Your task to perform on an android device: Play the last video I watched on Youtube Image 0: 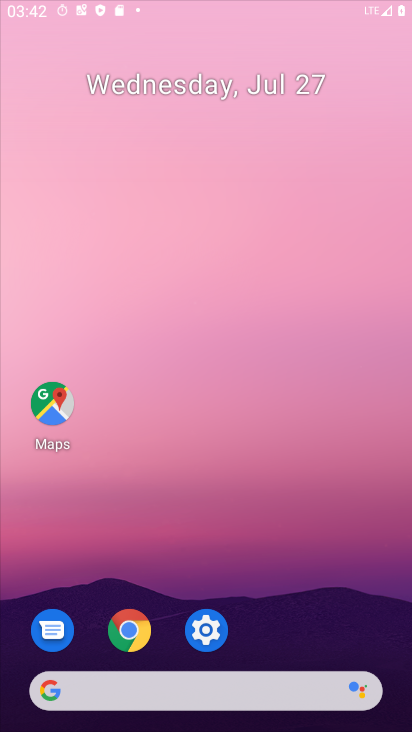
Step 0: click (266, 218)
Your task to perform on an android device: Play the last video I watched on Youtube Image 1: 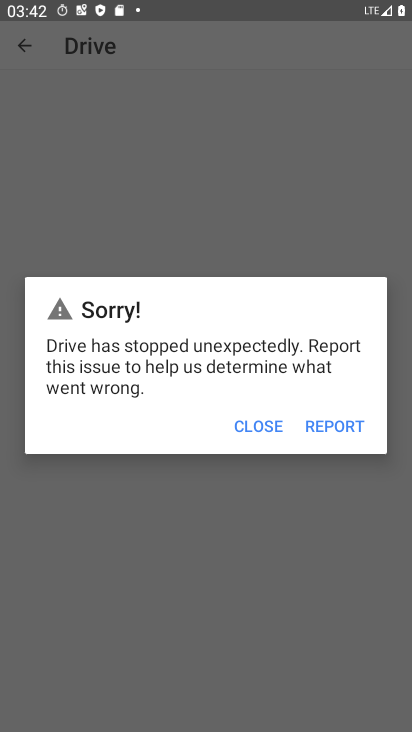
Step 1: drag from (245, 392) to (187, 4)
Your task to perform on an android device: Play the last video I watched on Youtube Image 2: 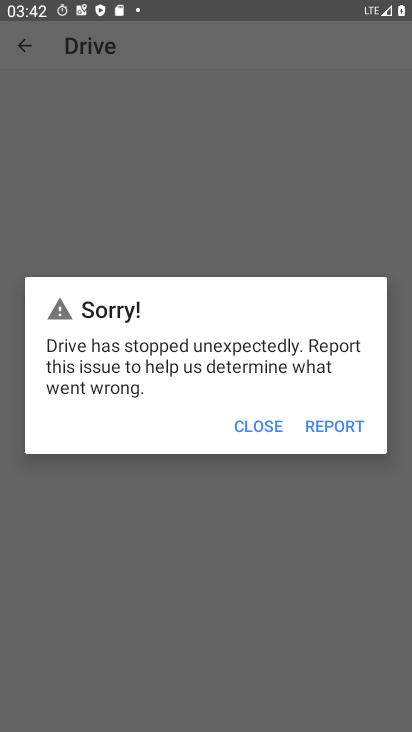
Step 2: click (255, 418)
Your task to perform on an android device: Play the last video I watched on Youtube Image 3: 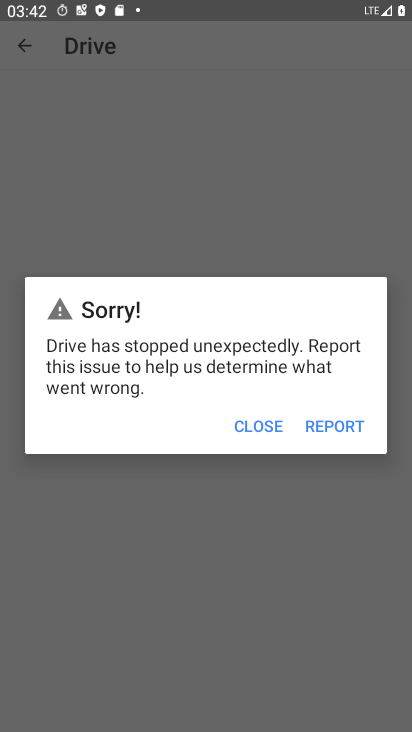
Step 3: click (255, 418)
Your task to perform on an android device: Play the last video I watched on Youtube Image 4: 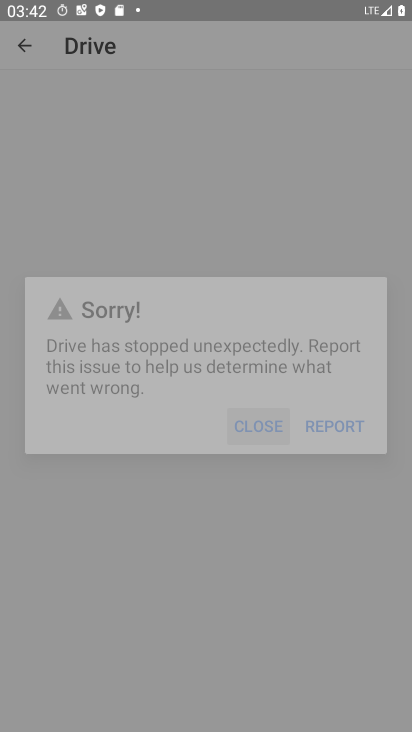
Step 4: click (254, 417)
Your task to perform on an android device: Play the last video I watched on Youtube Image 5: 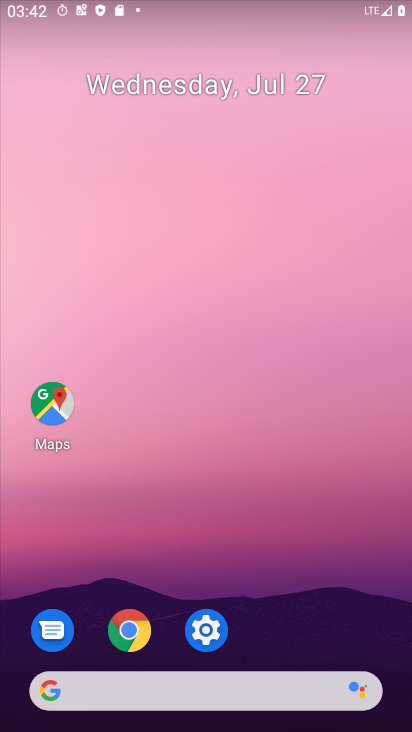
Step 5: drag from (145, 143) to (203, 56)
Your task to perform on an android device: Play the last video I watched on Youtube Image 6: 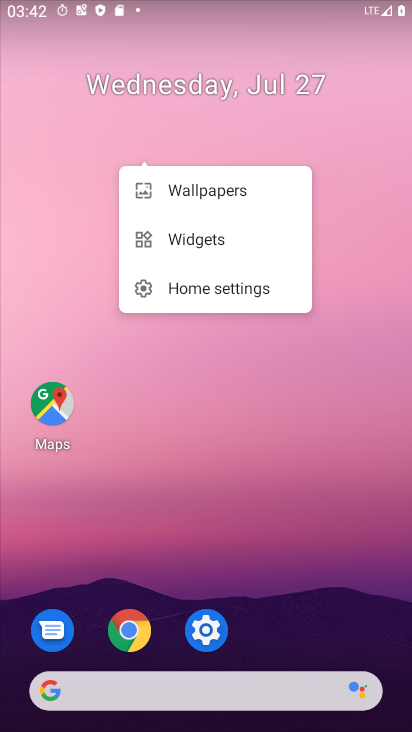
Step 6: drag from (212, 327) to (197, 241)
Your task to perform on an android device: Play the last video I watched on Youtube Image 7: 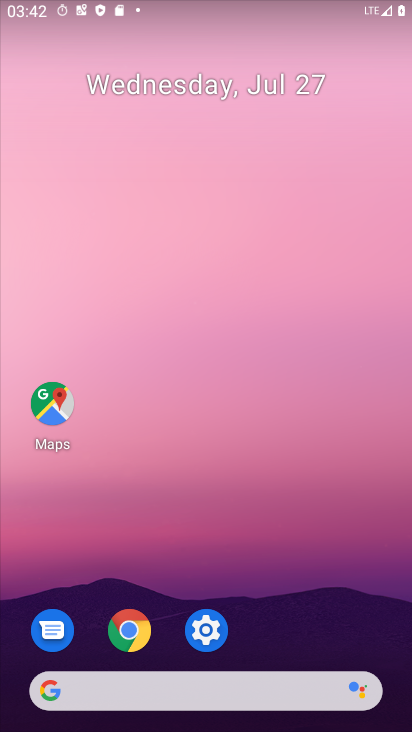
Step 7: drag from (237, 472) to (284, 159)
Your task to perform on an android device: Play the last video I watched on Youtube Image 8: 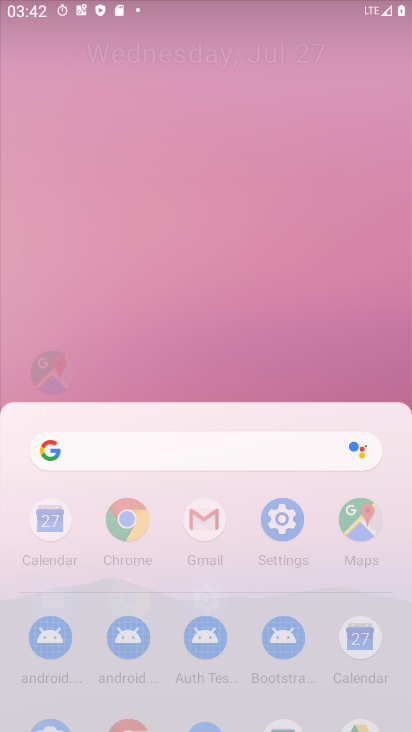
Step 8: drag from (308, 330) to (340, 123)
Your task to perform on an android device: Play the last video I watched on Youtube Image 9: 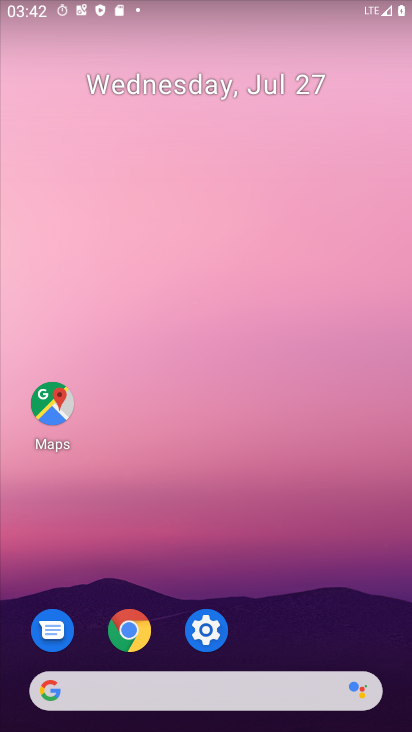
Step 9: drag from (296, 331) to (296, 150)
Your task to perform on an android device: Play the last video I watched on Youtube Image 10: 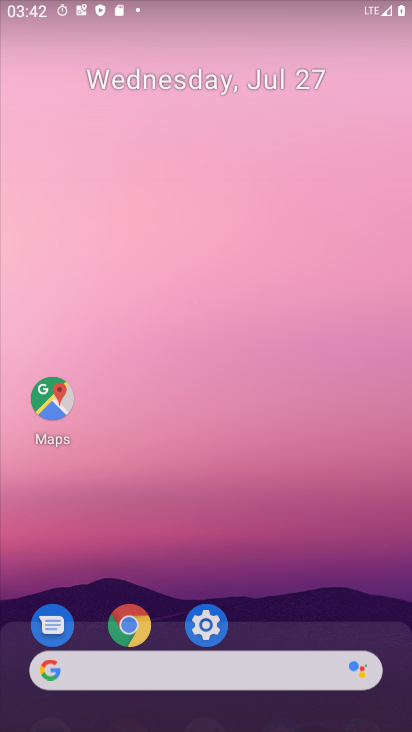
Step 10: drag from (249, 516) to (249, 246)
Your task to perform on an android device: Play the last video I watched on Youtube Image 11: 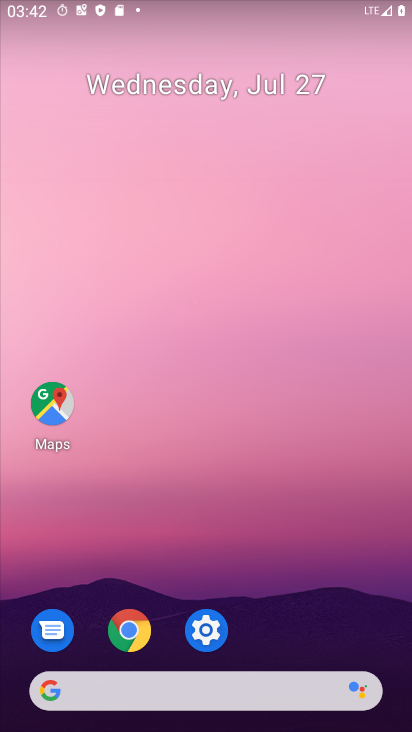
Step 11: drag from (216, 507) to (204, 234)
Your task to perform on an android device: Play the last video I watched on Youtube Image 12: 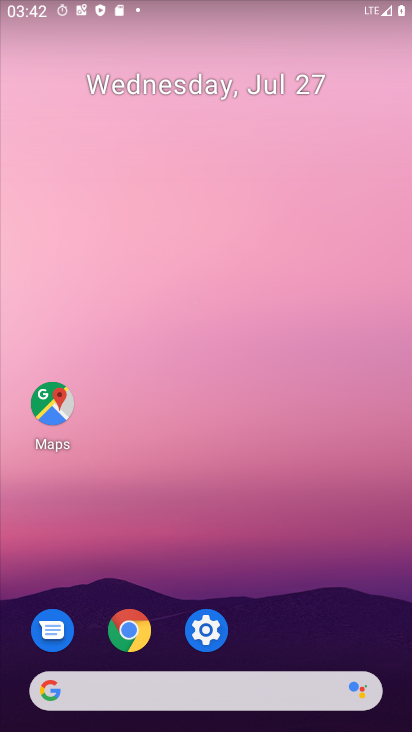
Step 12: drag from (279, 368) to (287, 43)
Your task to perform on an android device: Play the last video I watched on Youtube Image 13: 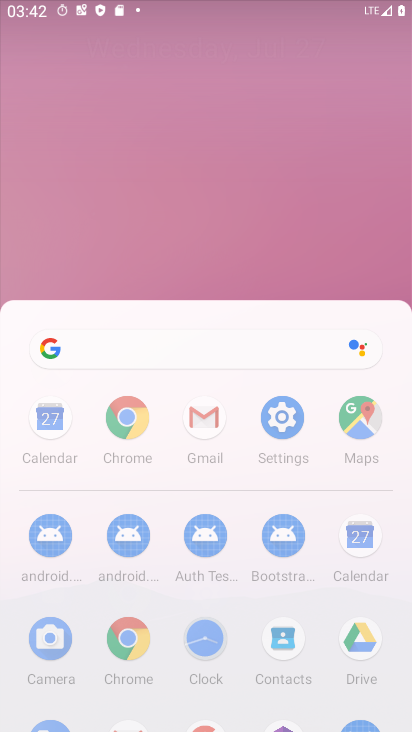
Step 13: drag from (305, 372) to (262, 103)
Your task to perform on an android device: Play the last video I watched on Youtube Image 14: 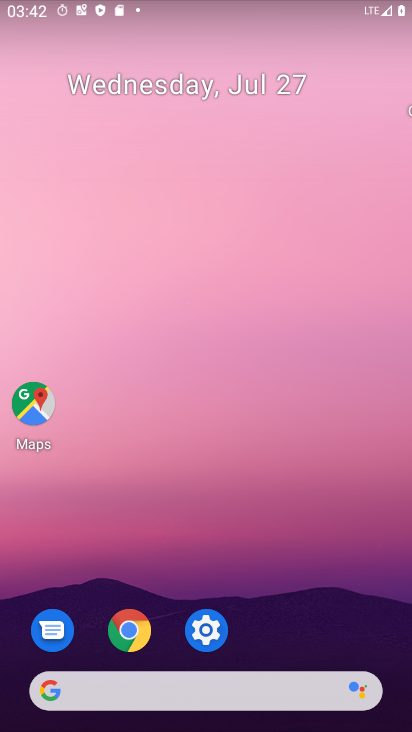
Step 14: drag from (247, 337) to (241, 169)
Your task to perform on an android device: Play the last video I watched on Youtube Image 15: 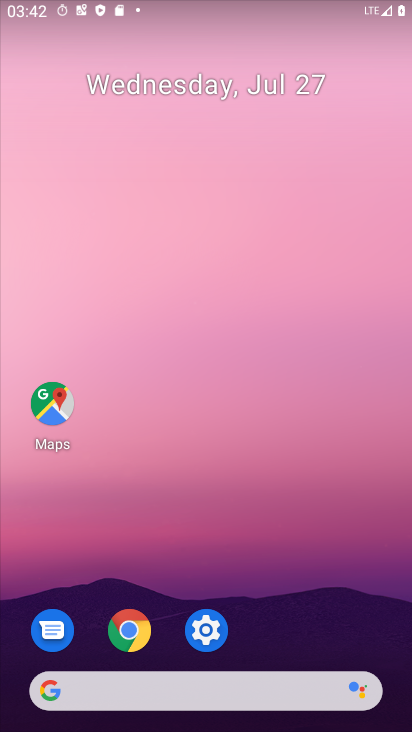
Step 15: drag from (293, 546) to (259, 125)
Your task to perform on an android device: Play the last video I watched on Youtube Image 16: 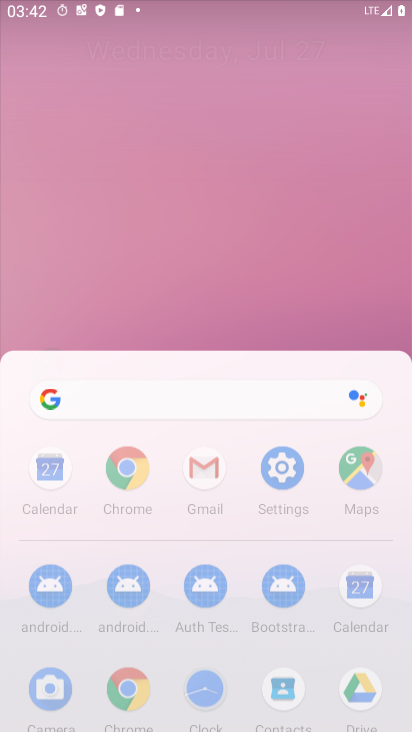
Step 16: drag from (269, 424) to (256, 65)
Your task to perform on an android device: Play the last video I watched on Youtube Image 17: 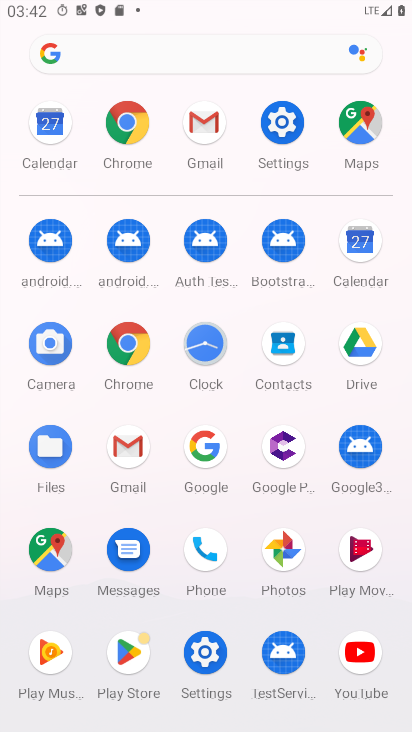
Step 17: drag from (277, 390) to (286, 207)
Your task to perform on an android device: Play the last video I watched on Youtube Image 18: 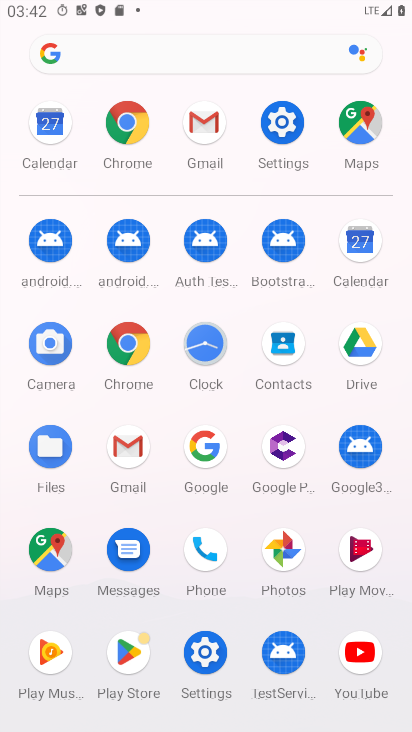
Step 18: click (348, 643)
Your task to perform on an android device: Play the last video I watched on Youtube Image 19: 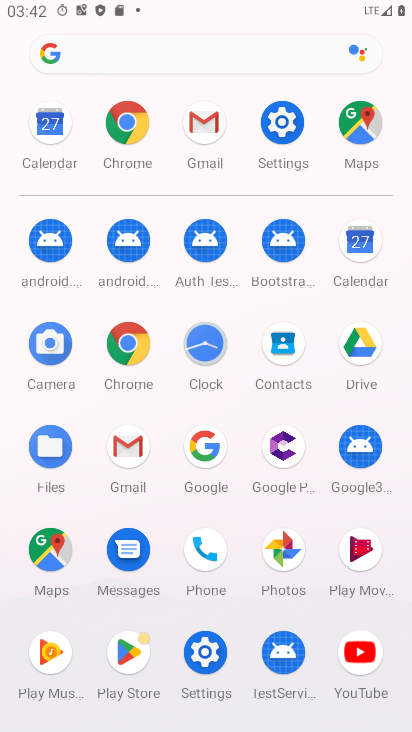
Step 19: click (350, 647)
Your task to perform on an android device: Play the last video I watched on Youtube Image 20: 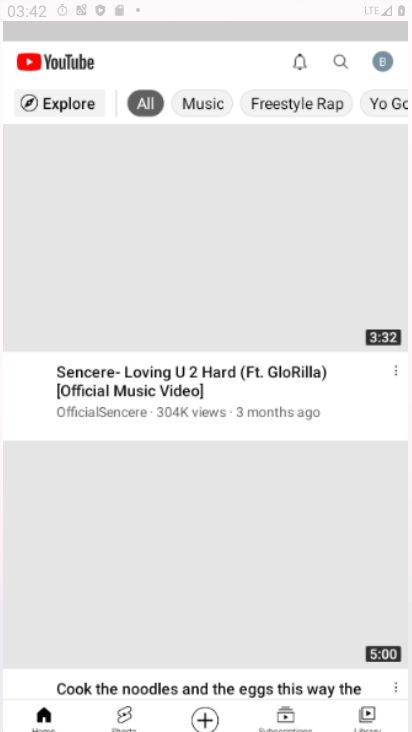
Step 20: click (350, 647)
Your task to perform on an android device: Play the last video I watched on Youtube Image 21: 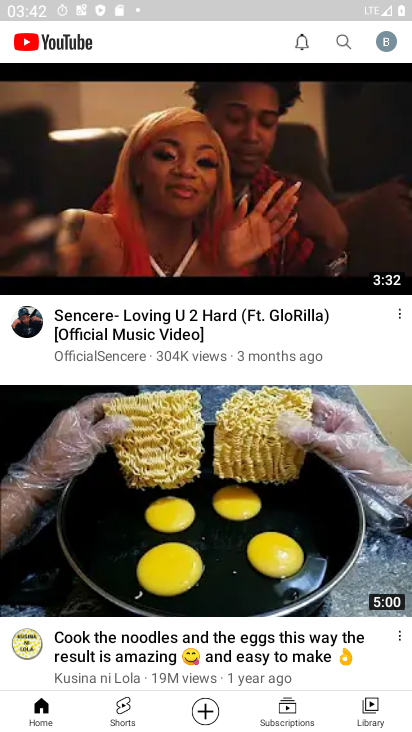
Step 21: drag from (230, 305) to (232, 220)
Your task to perform on an android device: Play the last video I watched on Youtube Image 22: 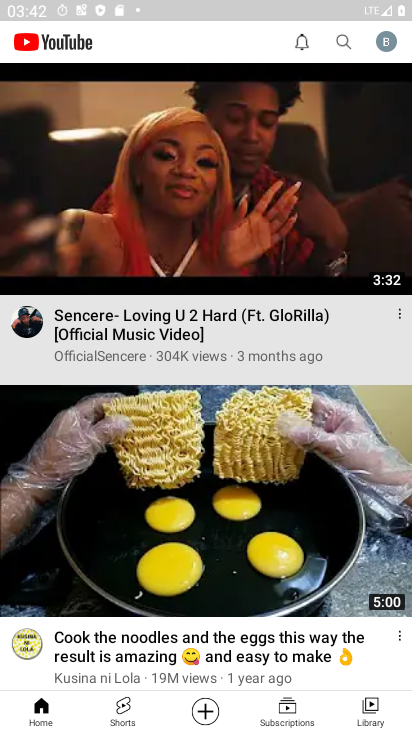
Step 22: click (309, 304)
Your task to perform on an android device: Play the last video I watched on Youtube Image 23: 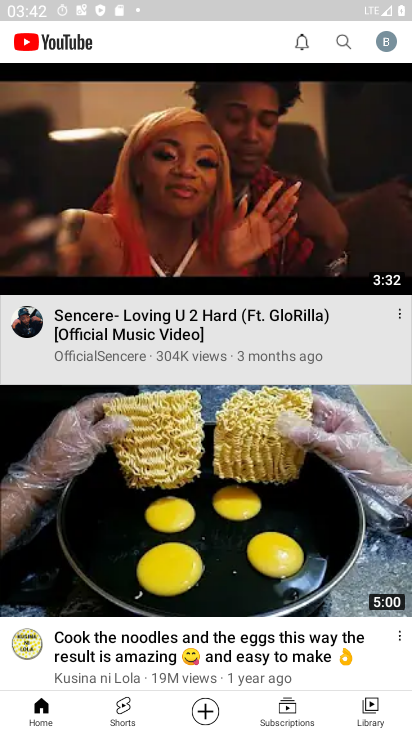
Step 23: drag from (326, 387) to (326, 315)
Your task to perform on an android device: Play the last video I watched on Youtube Image 24: 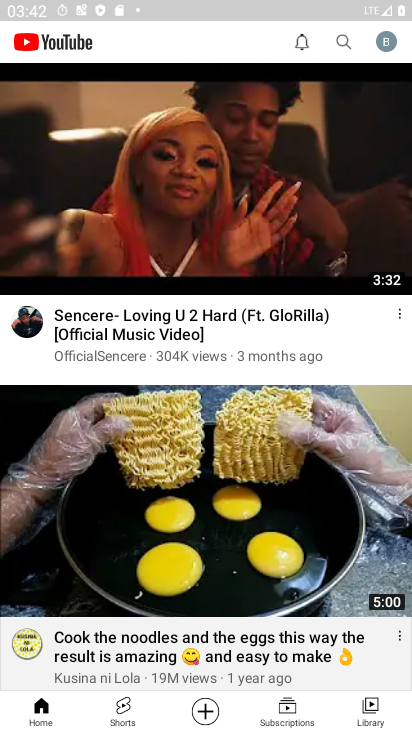
Step 24: drag from (336, 422) to (330, 279)
Your task to perform on an android device: Play the last video I watched on Youtube Image 25: 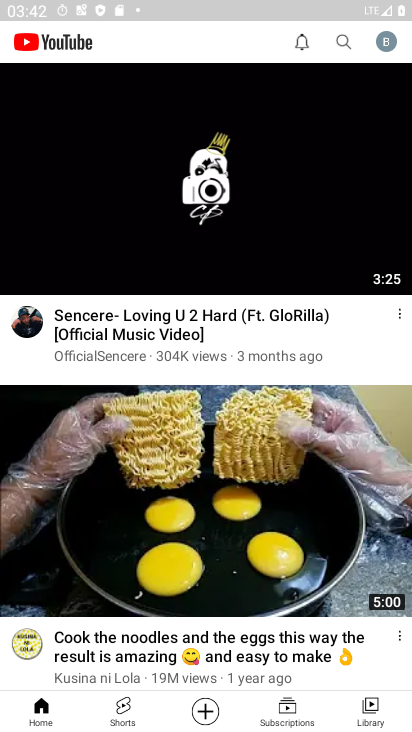
Step 25: drag from (224, 427) to (200, 215)
Your task to perform on an android device: Play the last video I watched on Youtube Image 26: 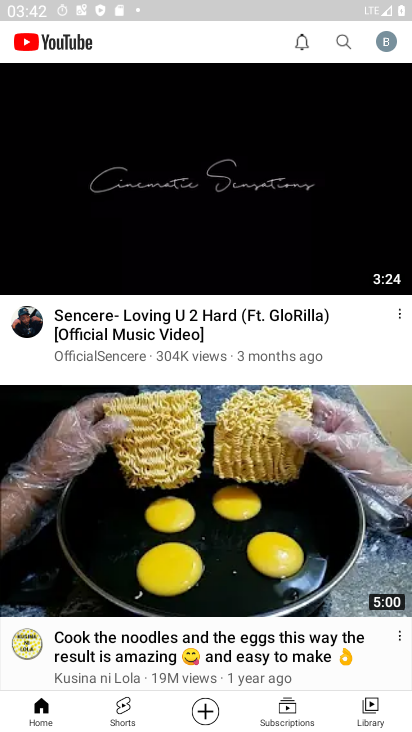
Step 26: click (197, 233)
Your task to perform on an android device: Play the last video I watched on Youtube Image 27: 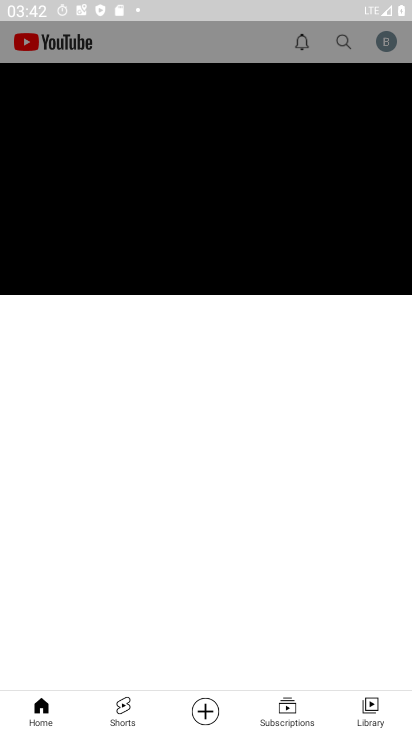
Step 27: click (211, 464)
Your task to perform on an android device: Play the last video I watched on Youtube Image 28: 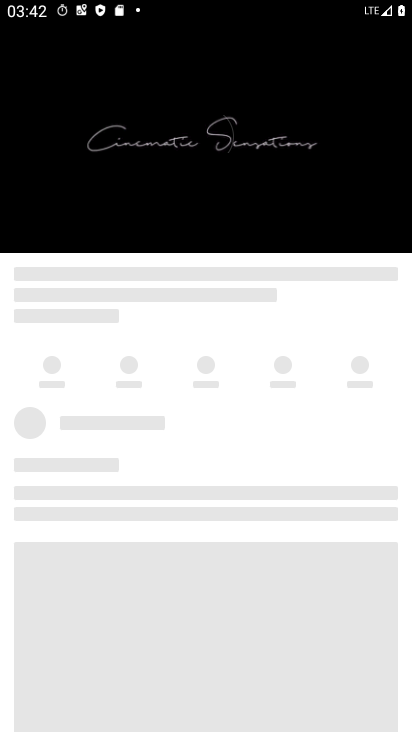
Step 28: click (212, 467)
Your task to perform on an android device: Play the last video I watched on Youtube Image 29: 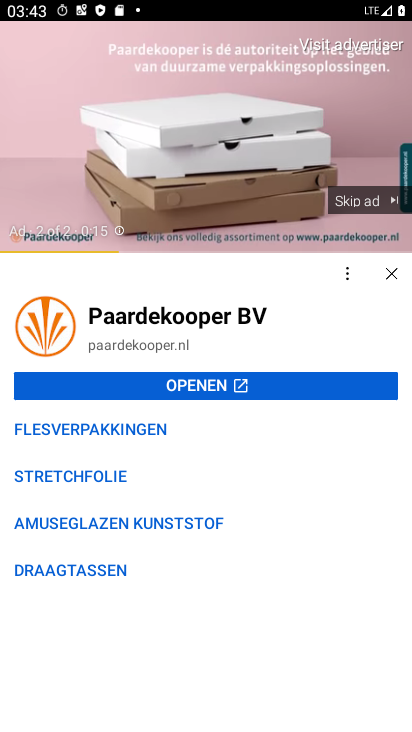
Step 29: task complete